Your task to perform on an android device: open a new tab in the chrome app Image 0: 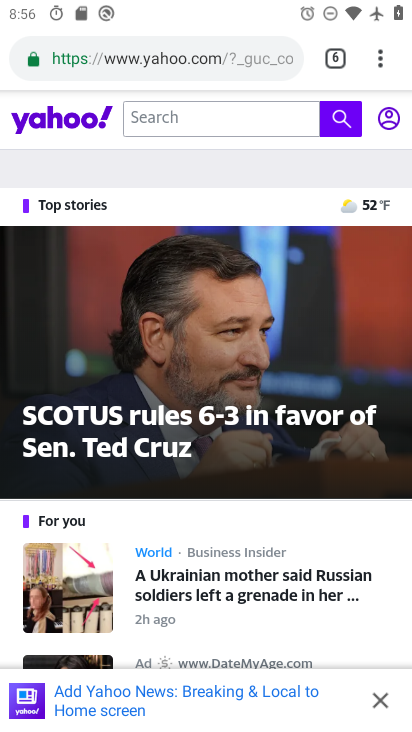
Step 0: press home button
Your task to perform on an android device: open a new tab in the chrome app Image 1: 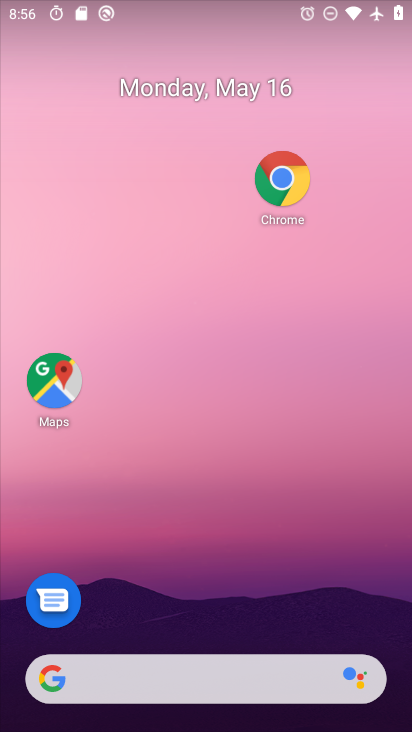
Step 1: click (281, 182)
Your task to perform on an android device: open a new tab in the chrome app Image 2: 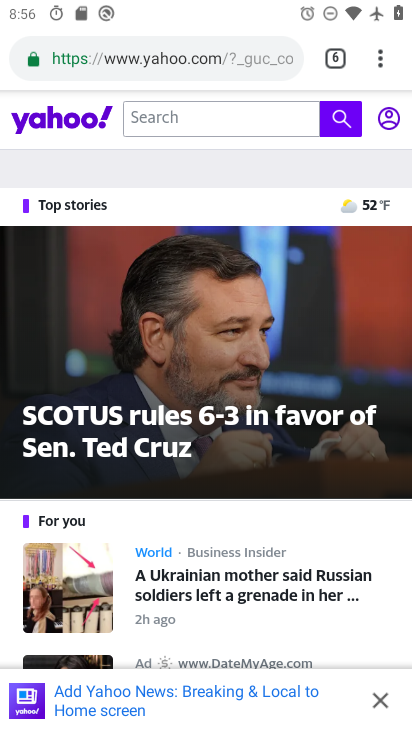
Step 2: task complete